Your task to perform on an android device: Open internet settings Image 0: 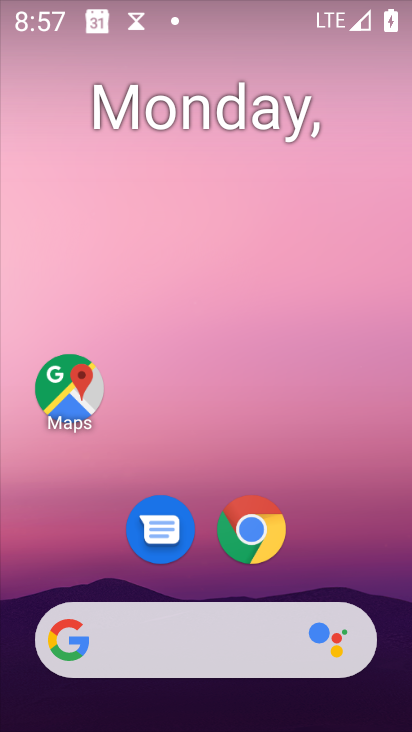
Step 0: press home button
Your task to perform on an android device: Open internet settings Image 1: 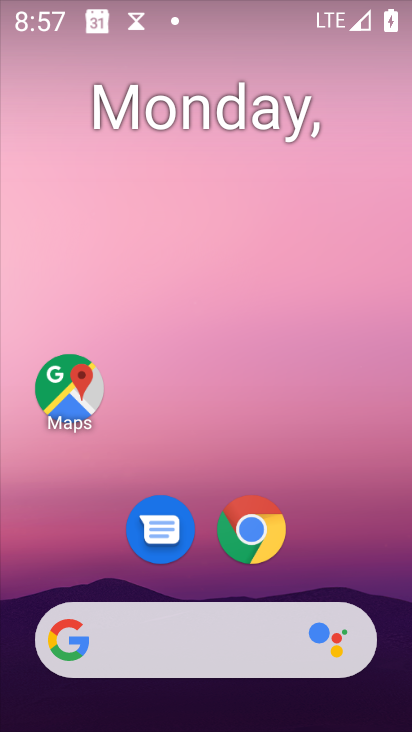
Step 1: drag from (6, 682) to (196, 145)
Your task to perform on an android device: Open internet settings Image 2: 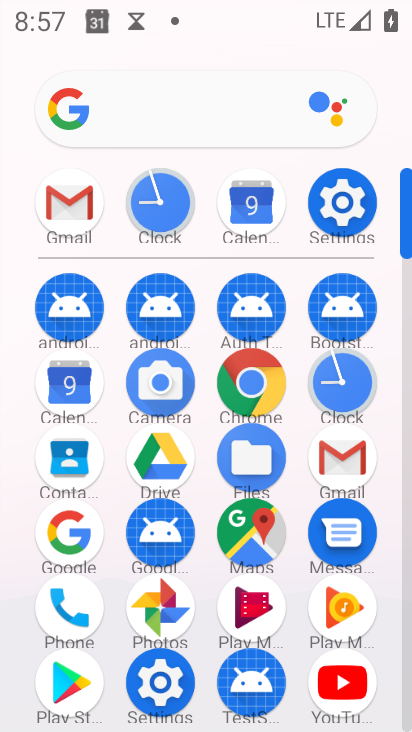
Step 2: click (355, 203)
Your task to perform on an android device: Open internet settings Image 3: 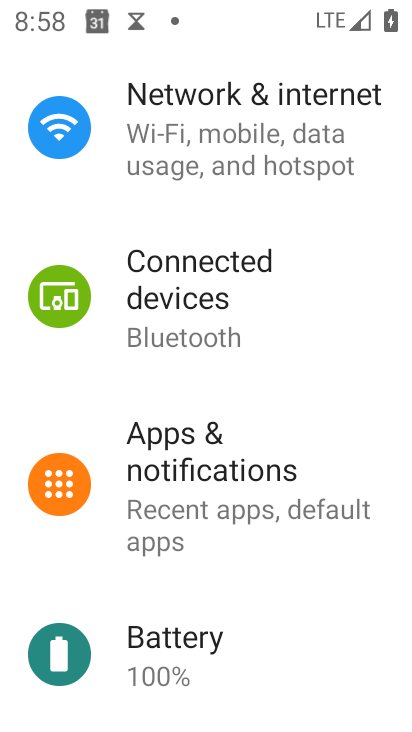
Step 3: click (215, 168)
Your task to perform on an android device: Open internet settings Image 4: 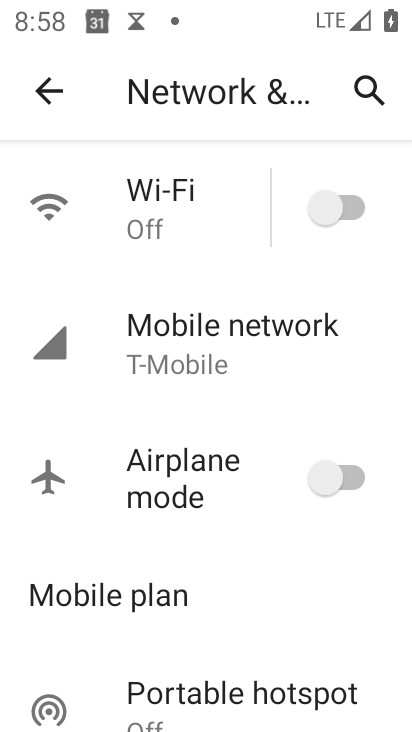
Step 4: click (166, 345)
Your task to perform on an android device: Open internet settings Image 5: 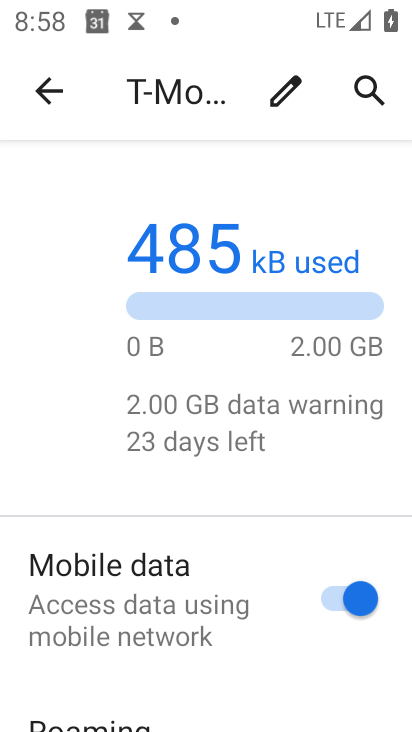
Step 5: task complete